Your task to perform on an android device: Open sound settings Image 0: 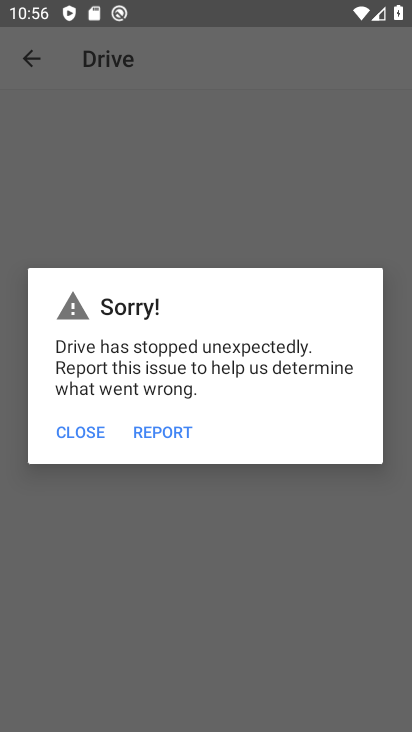
Step 0: press home button
Your task to perform on an android device: Open sound settings Image 1: 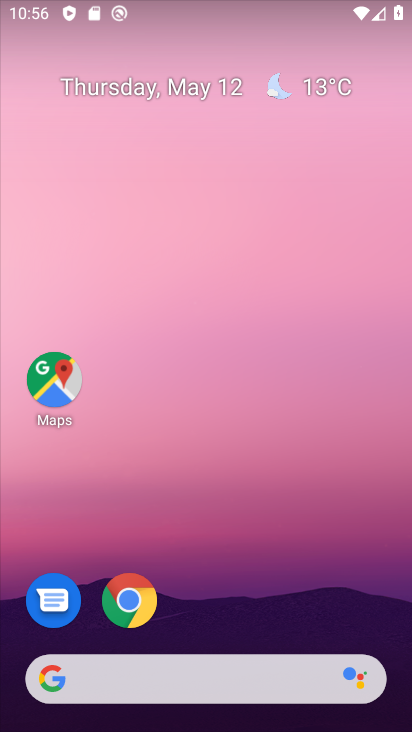
Step 1: drag from (388, 625) to (372, 170)
Your task to perform on an android device: Open sound settings Image 2: 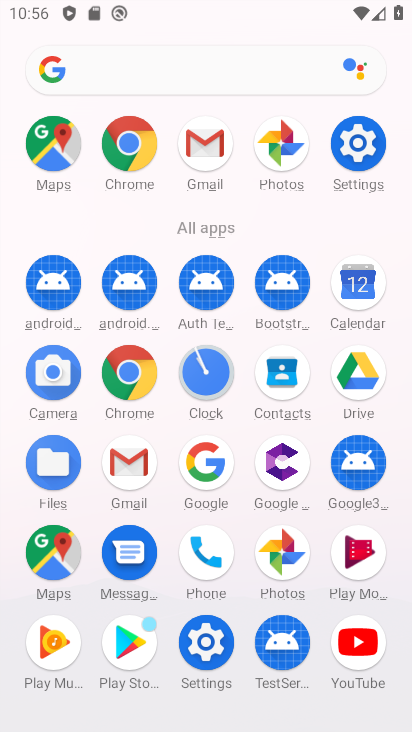
Step 2: click (201, 635)
Your task to perform on an android device: Open sound settings Image 3: 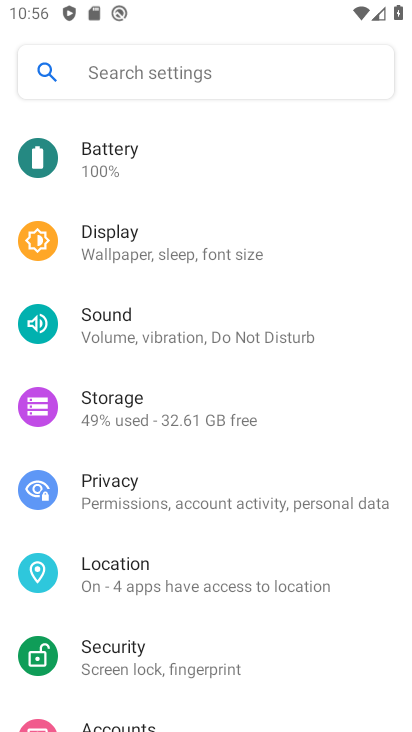
Step 3: click (126, 312)
Your task to perform on an android device: Open sound settings Image 4: 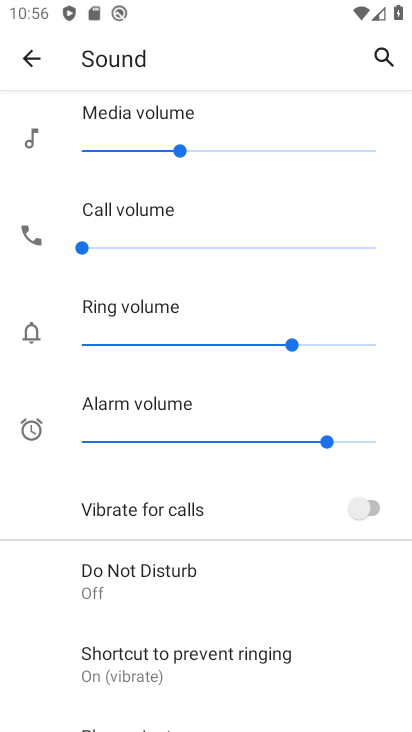
Step 4: drag from (246, 592) to (251, 246)
Your task to perform on an android device: Open sound settings Image 5: 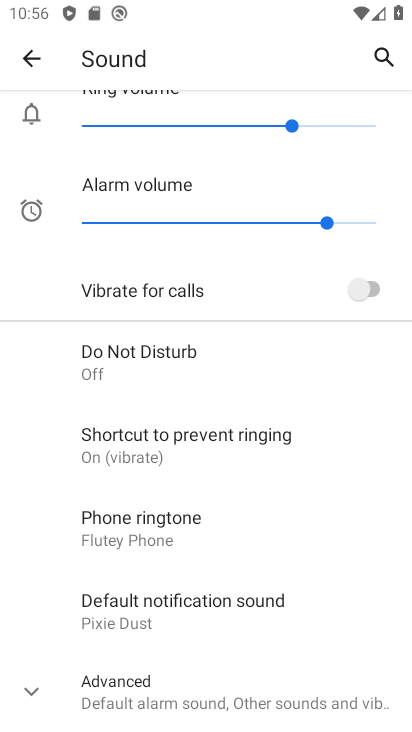
Step 5: drag from (239, 582) to (269, 228)
Your task to perform on an android device: Open sound settings Image 6: 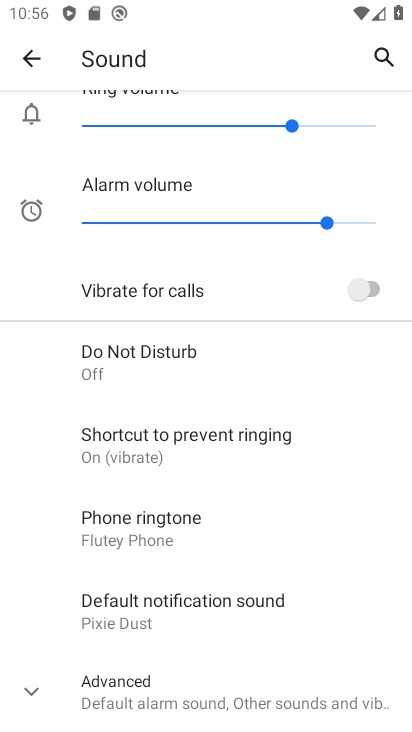
Step 6: click (36, 693)
Your task to perform on an android device: Open sound settings Image 7: 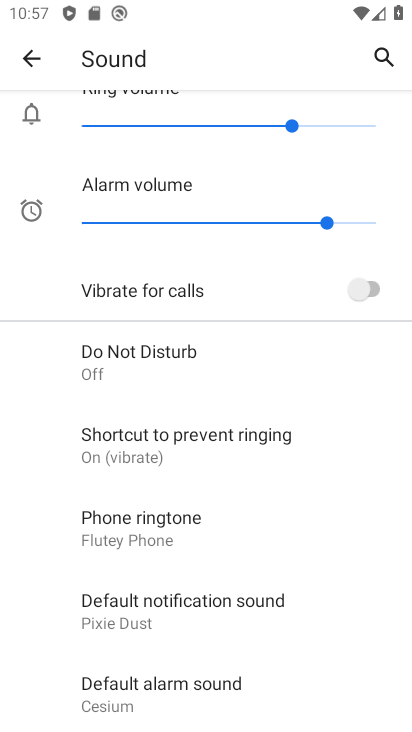
Step 7: task complete